Your task to perform on an android device: check battery use Image 0: 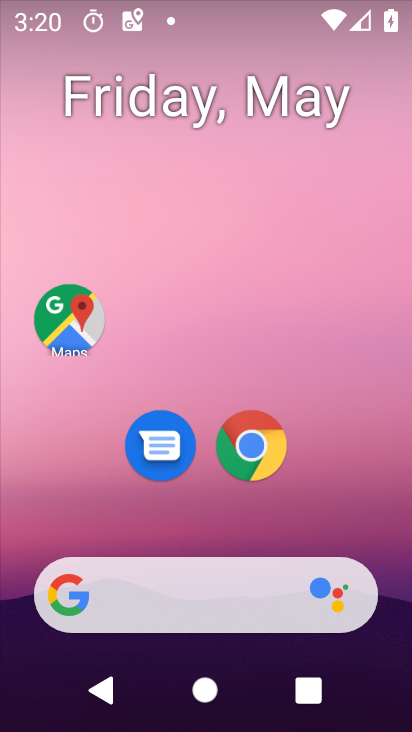
Step 0: drag from (185, 591) to (247, 8)
Your task to perform on an android device: check battery use Image 1: 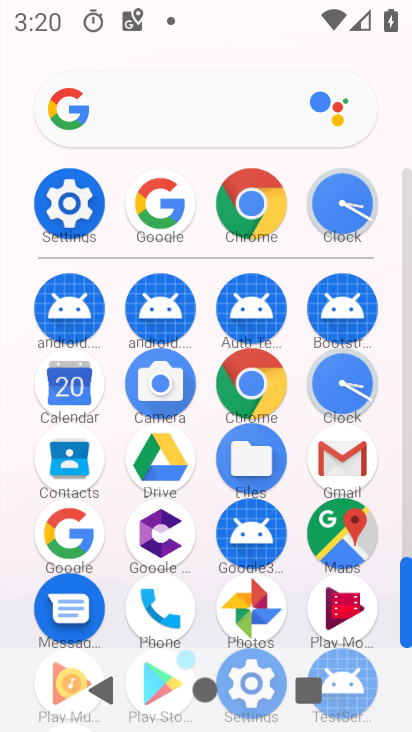
Step 1: click (78, 211)
Your task to perform on an android device: check battery use Image 2: 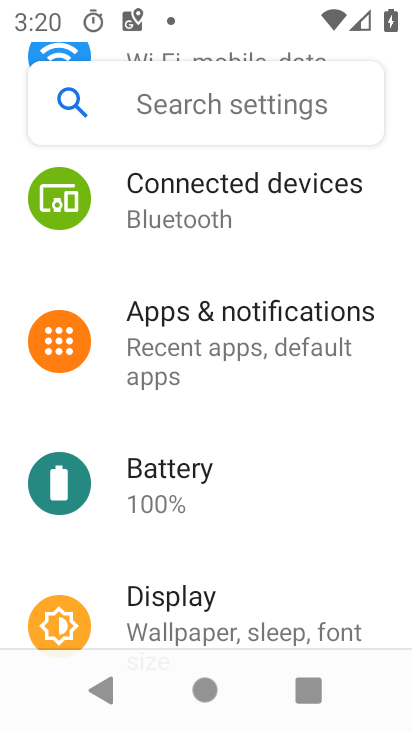
Step 2: click (238, 496)
Your task to perform on an android device: check battery use Image 3: 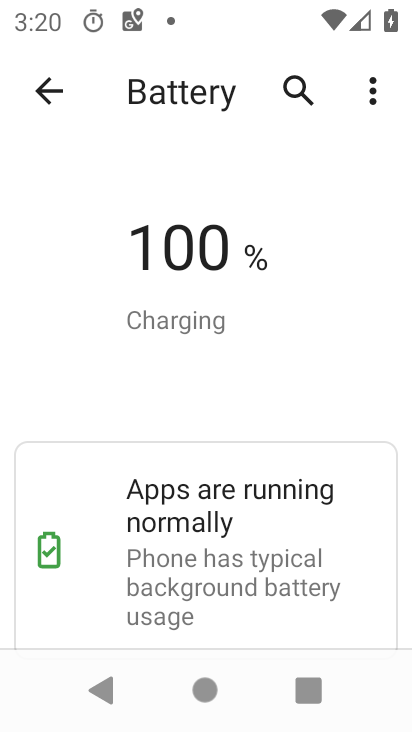
Step 3: task complete